Your task to perform on an android device: Go to CNN.com Image 0: 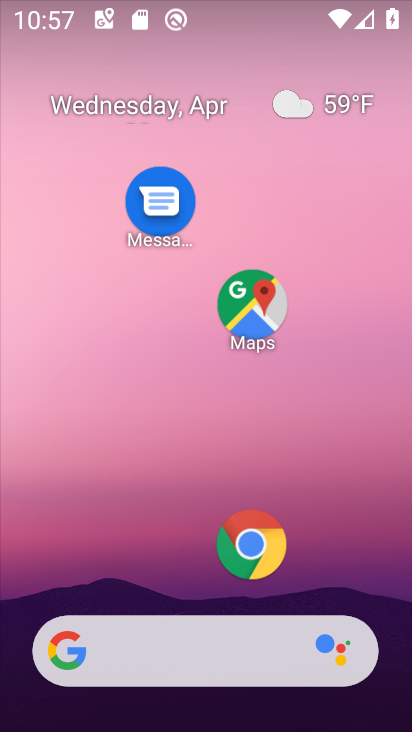
Step 0: click (214, 630)
Your task to perform on an android device: Go to CNN.com Image 1: 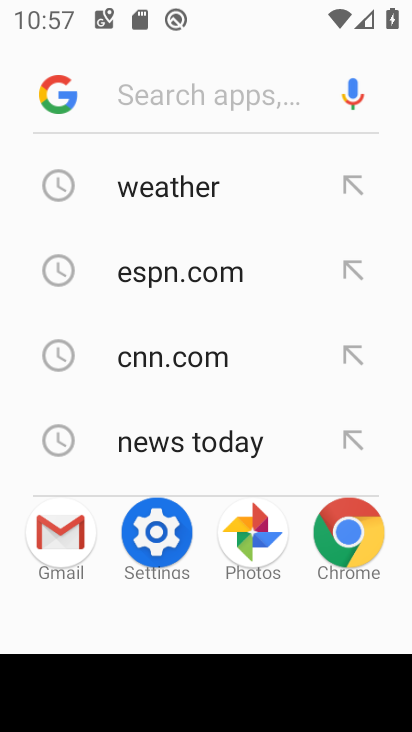
Step 1: click (192, 353)
Your task to perform on an android device: Go to CNN.com Image 2: 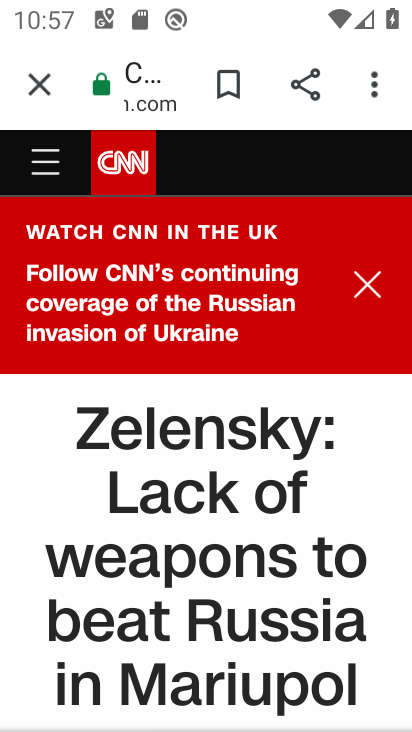
Step 2: task complete